Your task to perform on an android device: Open the web browser Image 0: 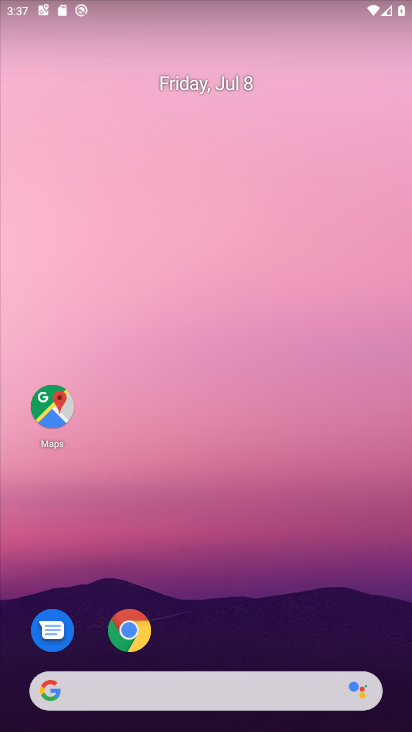
Step 0: drag from (281, 621) to (278, 76)
Your task to perform on an android device: Open the web browser Image 1: 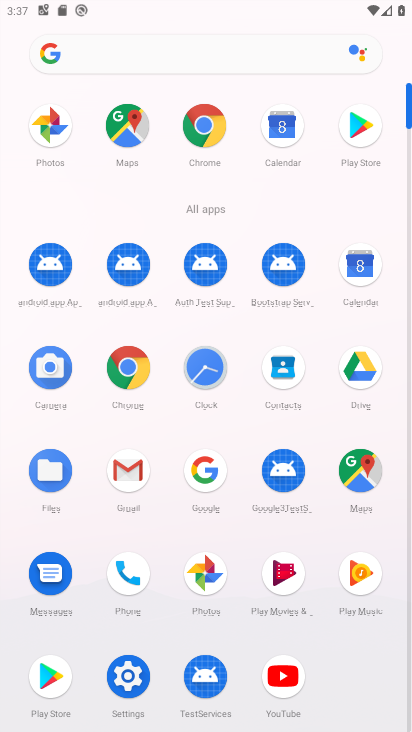
Step 1: click (131, 364)
Your task to perform on an android device: Open the web browser Image 2: 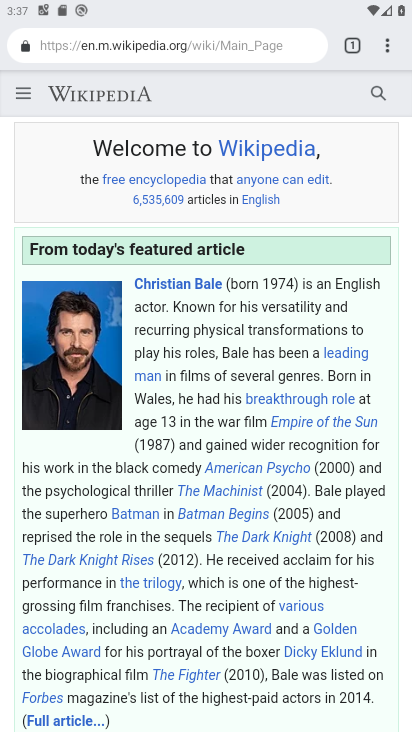
Step 2: task complete